Your task to perform on an android device: turn off notifications settings in the gmail app Image 0: 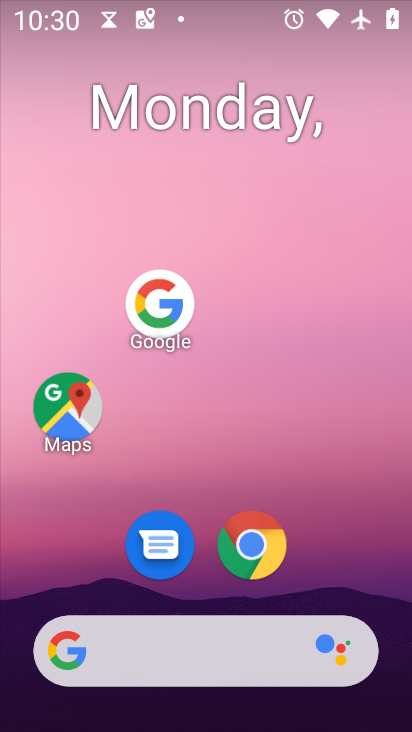
Step 0: press home button
Your task to perform on an android device: turn off notifications settings in the gmail app Image 1: 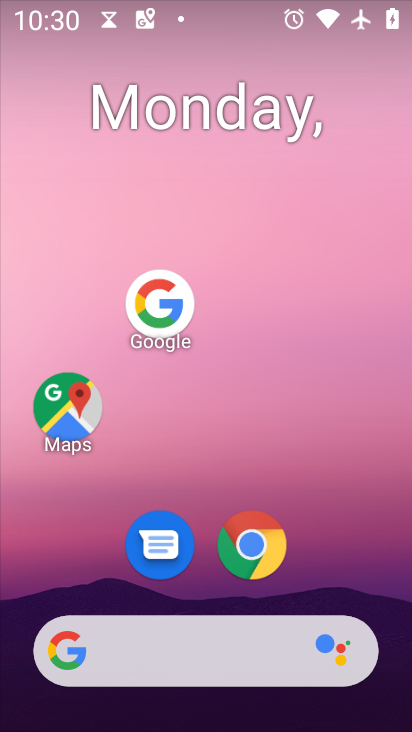
Step 1: drag from (197, 661) to (349, 222)
Your task to perform on an android device: turn off notifications settings in the gmail app Image 2: 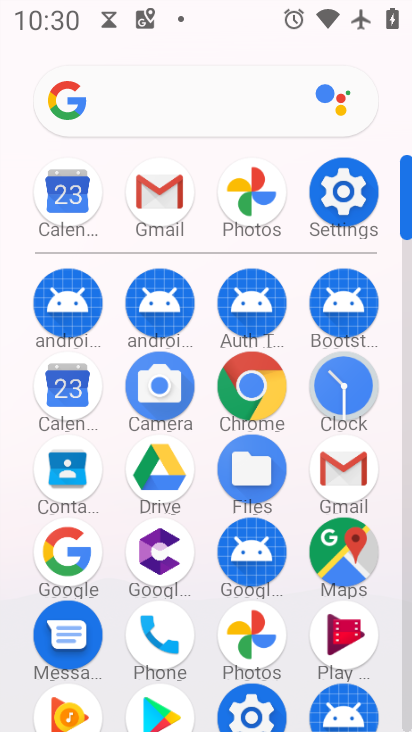
Step 2: click (148, 199)
Your task to perform on an android device: turn off notifications settings in the gmail app Image 3: 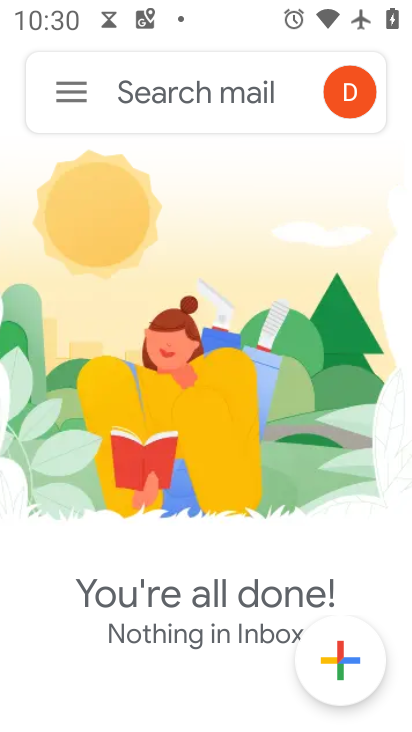
Step 3: click (76, 91)
Your task to perform on an android device: turn off notifications settings in the gmail app Image 4: 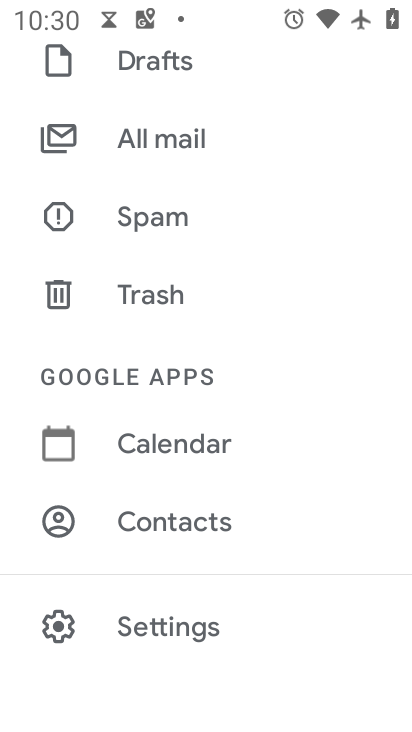
Step 4: click (177, 624)
Your task to perform on an android device: turn off notifications settings in the gmail app Image 5: 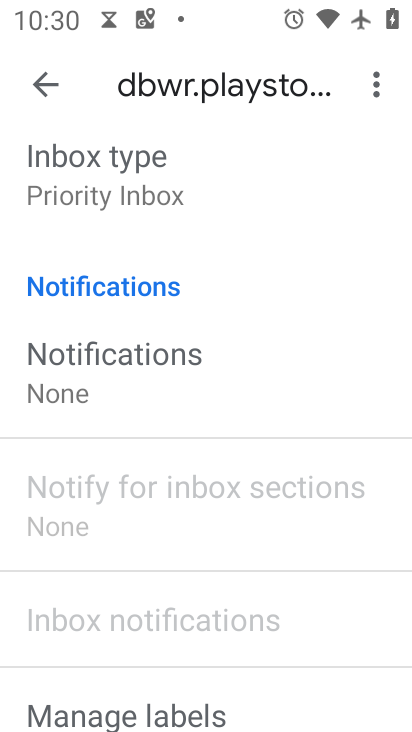
Step 5: click (143, 379)
Your task to perform on an android device: turn off notifications settings in the gmail app Image 6: 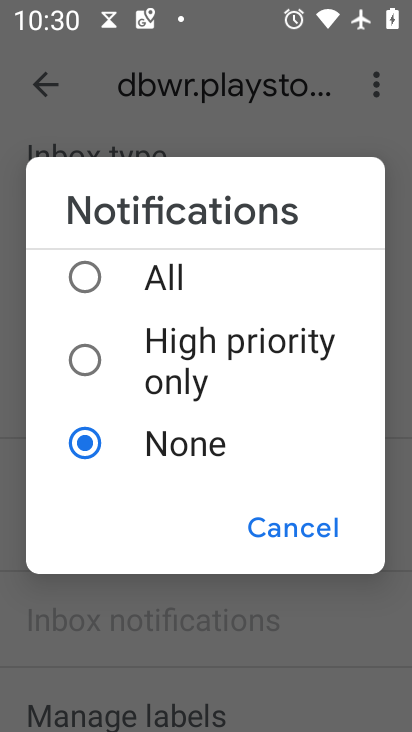
Step 6: task complete